Your task to perform on an android device: Go to battery settings Image 0: 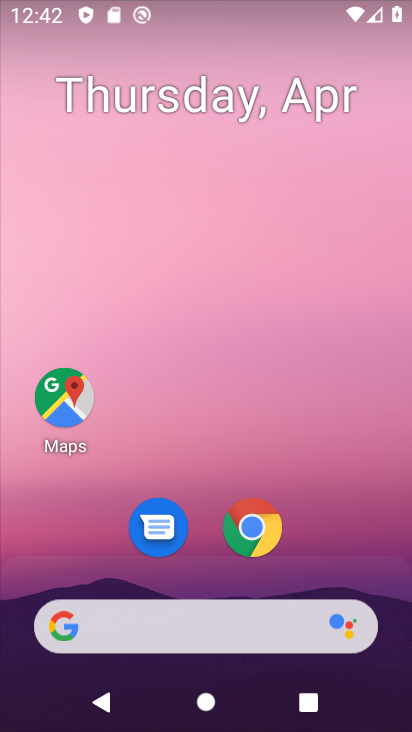
Step 0: drag from (194, 361) to (239, 27)
Your task to perform on an android device: Go to battery settings Image 1: 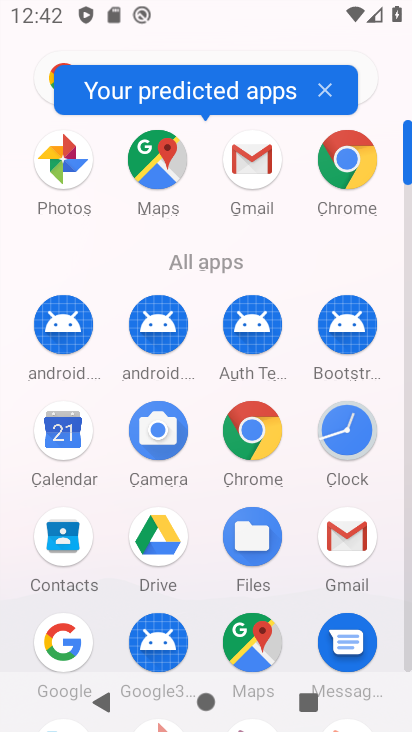
Step 1: drag from (201, 470) to (238, 243)
Your task to perform on an android device: Go to battery settings Image 2: 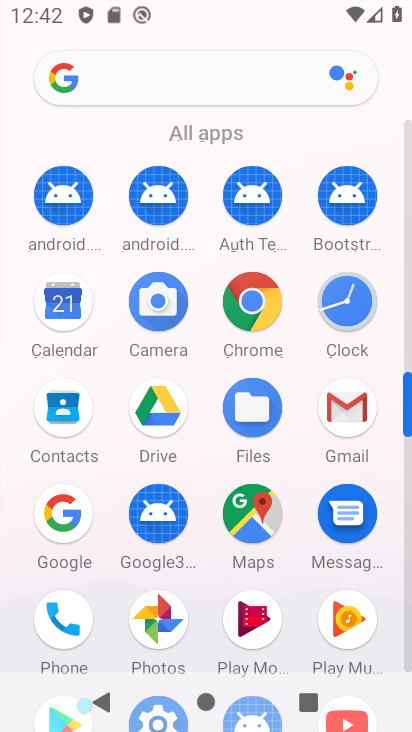
Step 2: drag from (209, 555) to (227, 309)
Your task to perform on an android device: Go to battery settings Image 3: 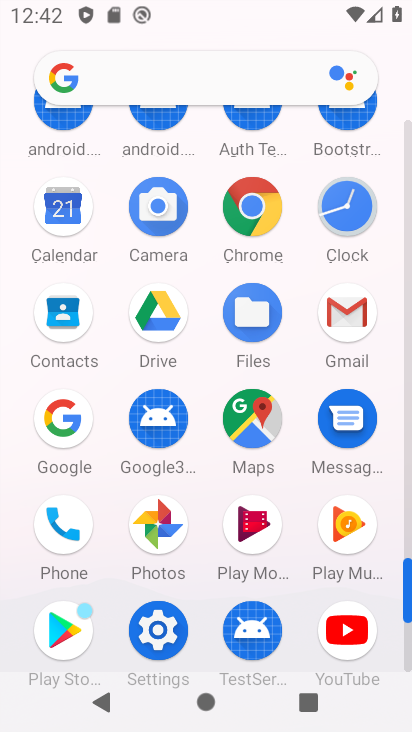
Step 3: click (145, 633)
Your task to perform on an android device: Go to battery settings Image 4: 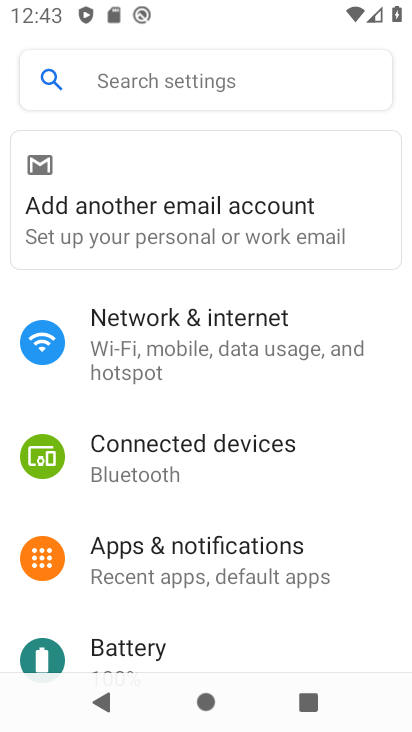
Step 4: click (143, 654)
Your task to perform on an android device: Go to battery settings Image 5: 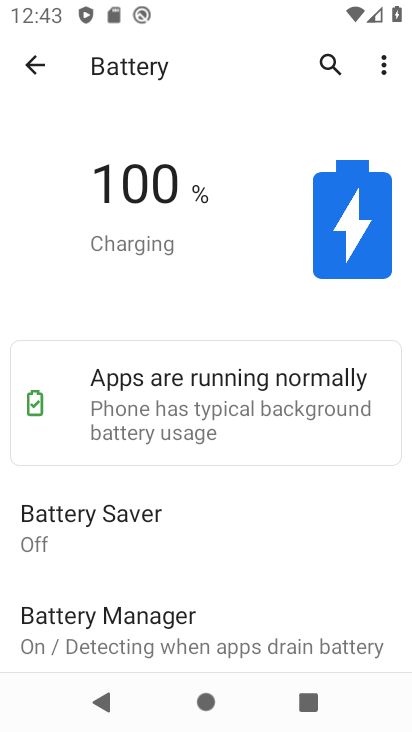
Step 5: task complete